Your task to perform on an android device: set an alarm Image 0: 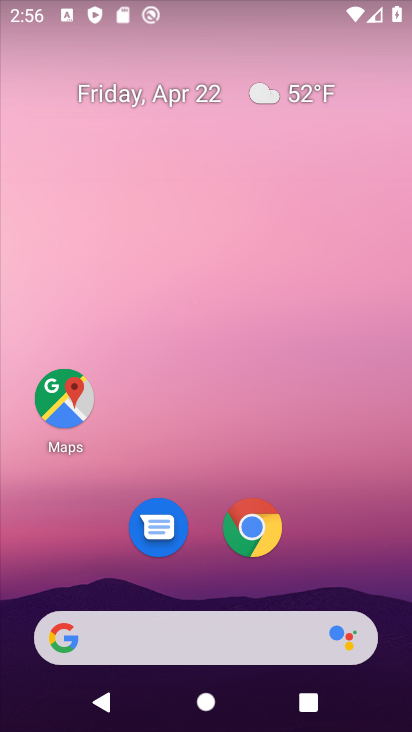
Step 0: drag from (341, 529) to (403, 76)
Your task to perform on an android device: set an alarm Image 1: 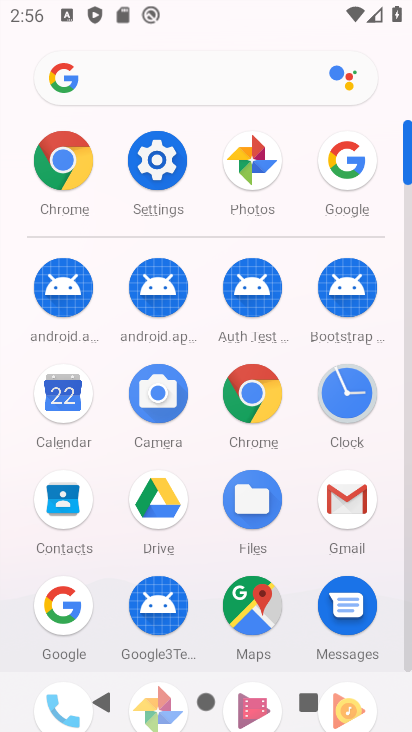
Step 1: click (356, 403)
Your task to perform on an android device: set an alarm Image 2: 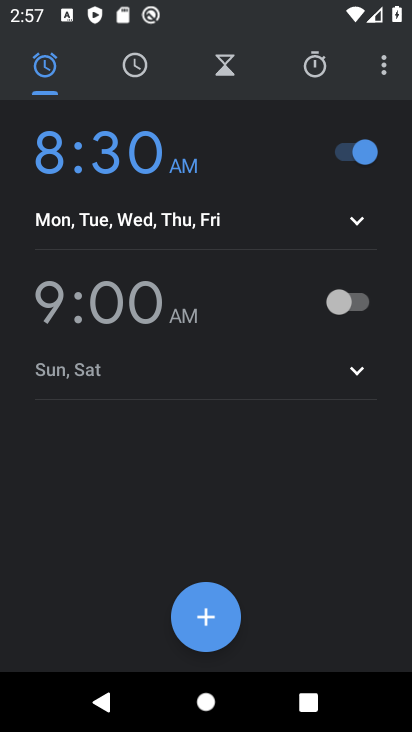
Step 2: click (344, 314)
Your task to perform on an android device: set an alarm Image 3: 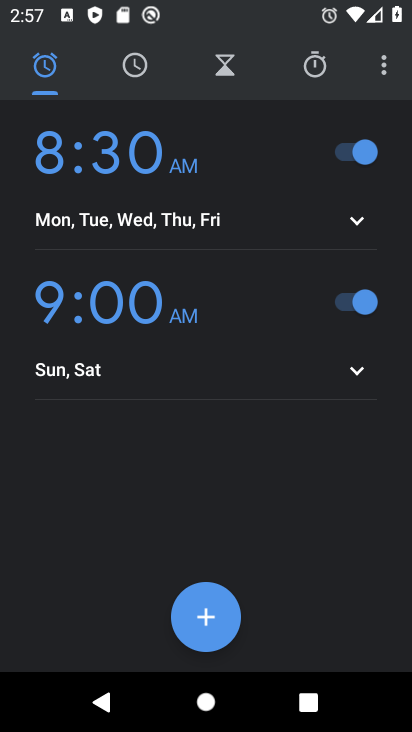
Step 3: task complete